Your task to perform on an android device: Play the last video I watched on Youtube Image 0: 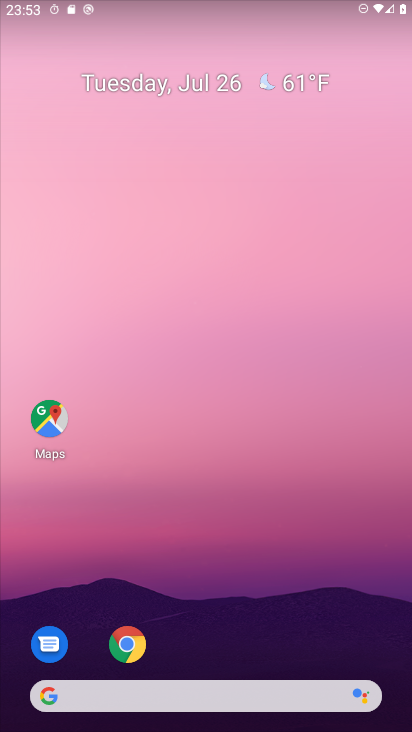
Step 0: drag from (284, 627) to (257, 20)
Your task to perform on an android device: Play the last video I watched on Youtube Image 1: 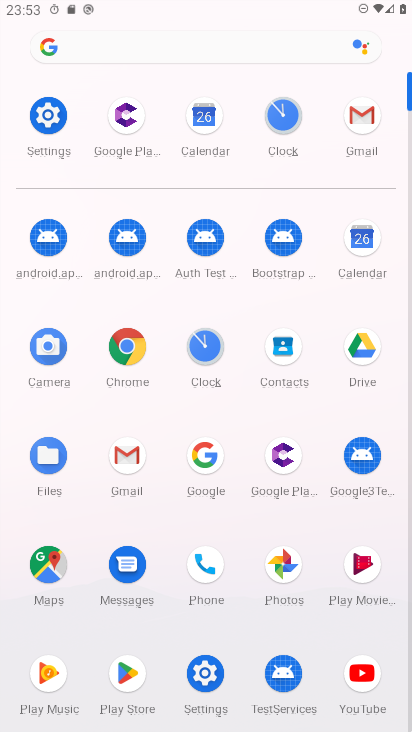
Step 1: click (364, 679)
Your task to perform on an android device: Play the last video I watched on Youtube Image 2: 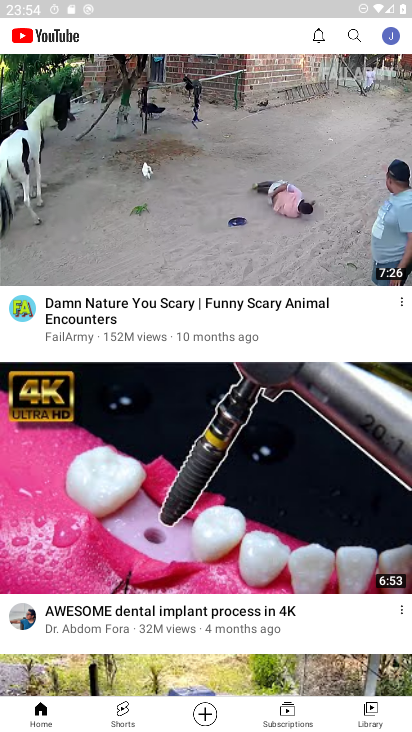
Step 2: click (363, 702)
Your task to perform on an android device: Play the last video I watched on Youtube Image 3: 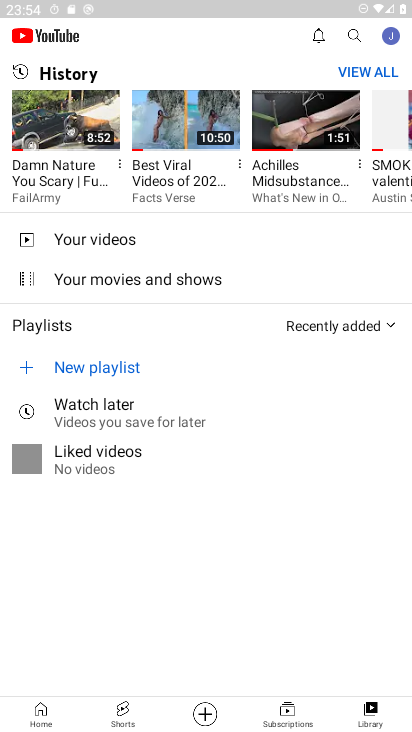
Step 3: click (39, 147)
Your task to perform on an android device: Play the last video I watched on Youtube Image 4: 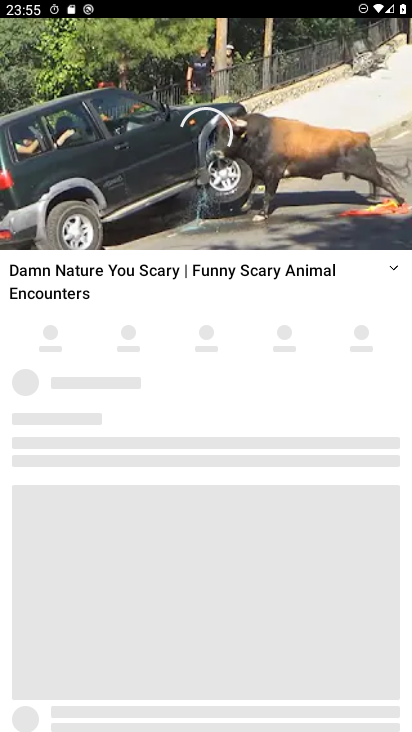
Step 4: click (195, 151)
Your task to perform on an android device: Play the last video I watched on Youtube Image 5: 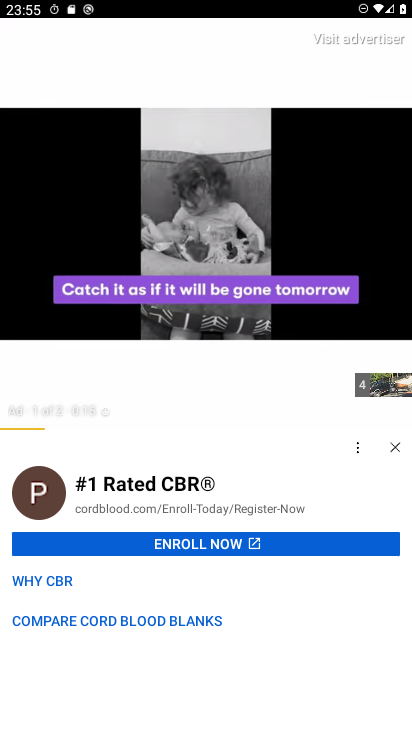
Step 5: click (195, 235)
Your task to perform on an android device: Play the last video I watched on Youtube Image 6: 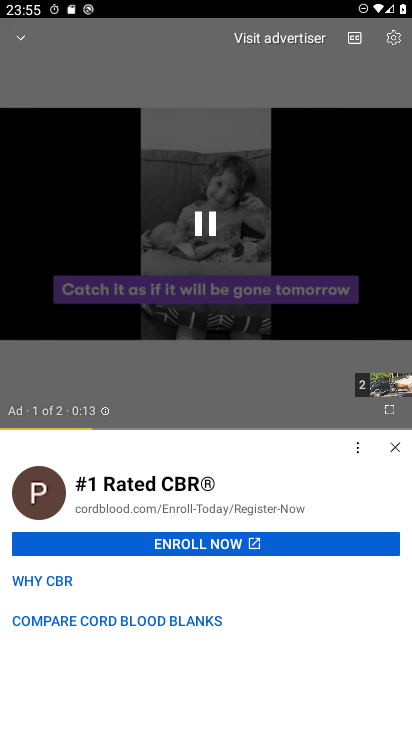
Step 6: click (195, 235)
Your task to perform on an android device: Play the last video I watched on Youtube Image 7: 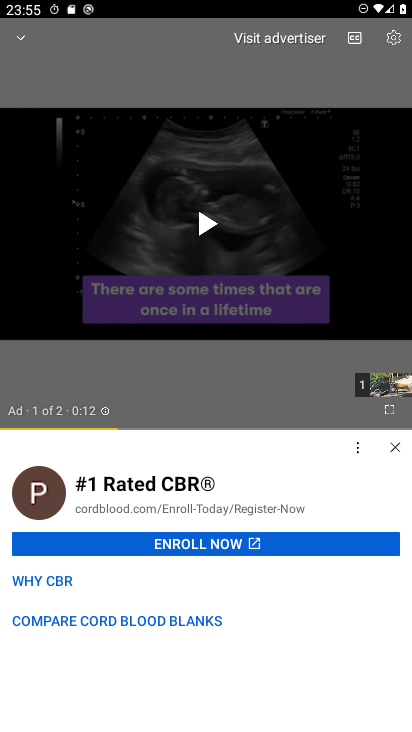
Step 7: task complete